Your task to perform on an android device: turn notification dots on Image 0: 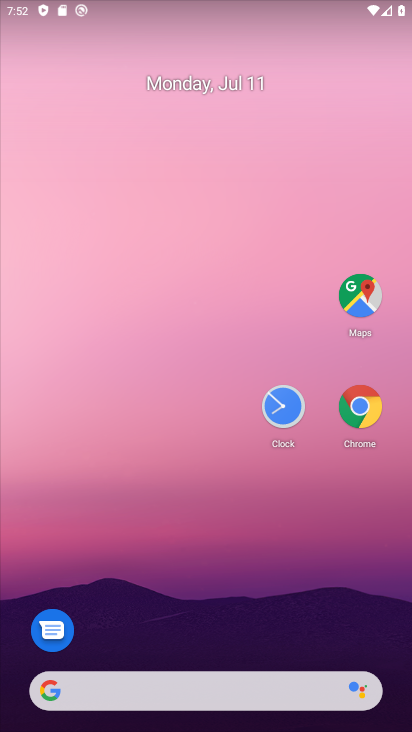
Step 0: drag from (233, 568) to (269, 219)
Your task to perform on an android device: turn notification dots on Image 1: 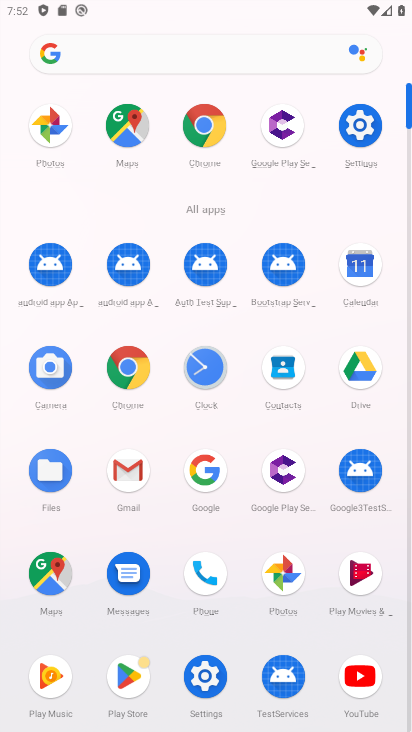
Step 1: drag from (368, 129) to (271, 312)
Your task to perform on an android device: turn notification dots on Image 2: 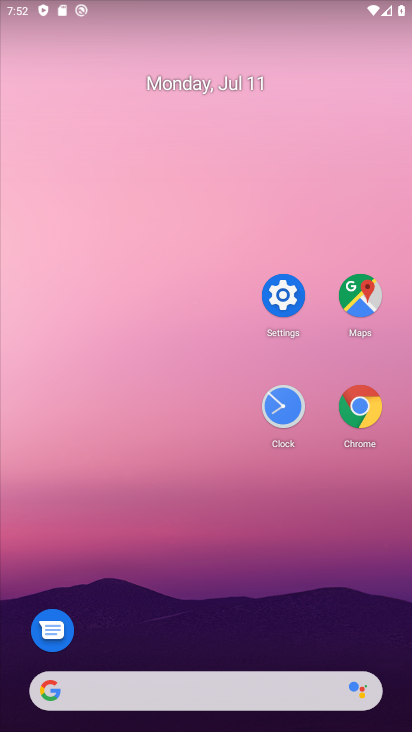
Step 2: click (293, 286)
Your task to perform on an android device: turn notification dots on Image 3: 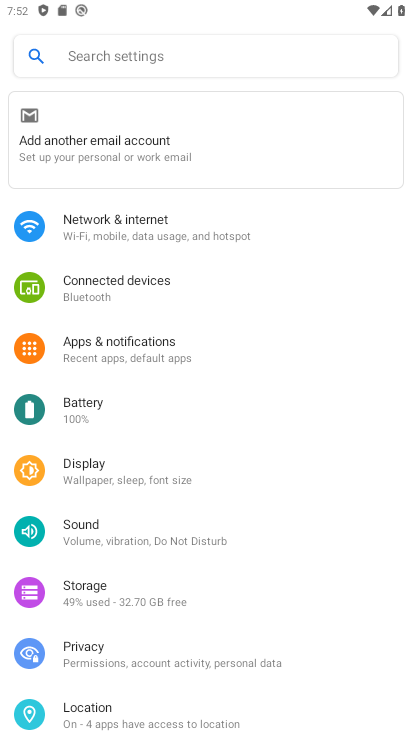
Step 3: click (220, 347)
Your task to perform on an android device: turn notification dots on Image 4: 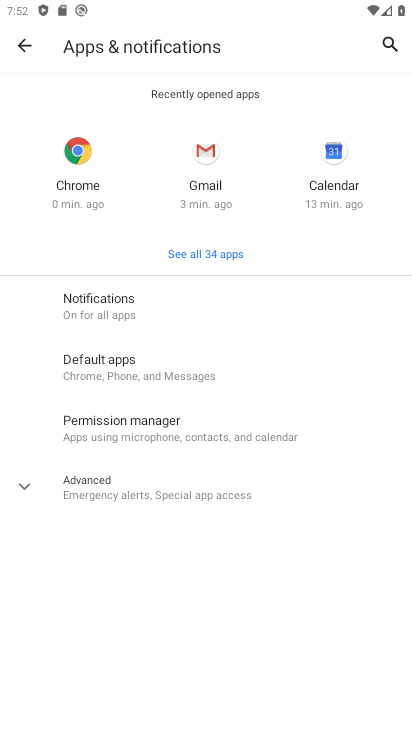
Step 4: click (121, 312)
Your task to perform on an android device: turn notification dots on Image 5: 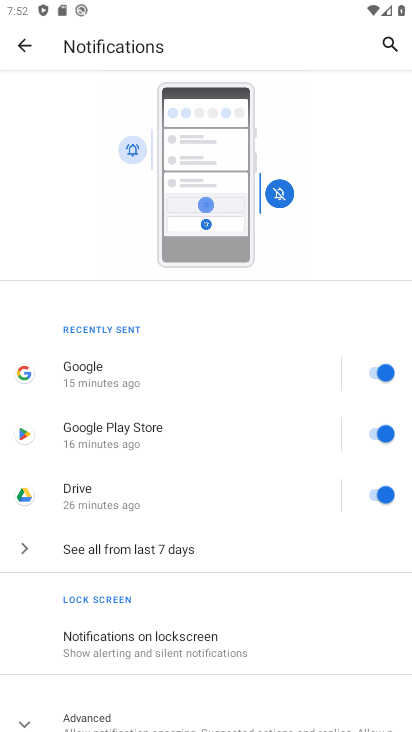
Step 5: drag from (248, 681) to (285, 319)
Your task to perform on an android device: turn notification dots on Image 6: 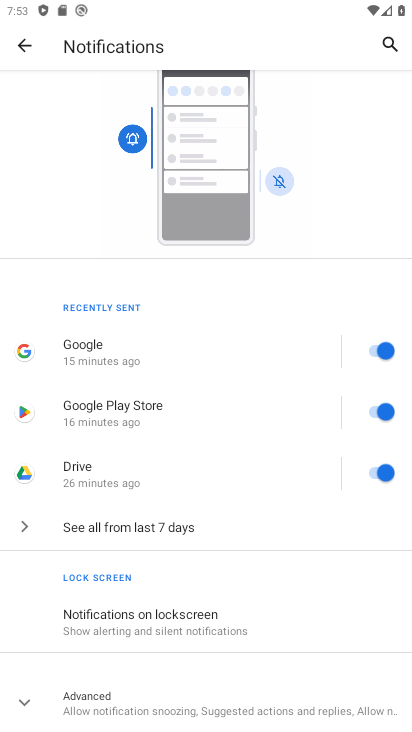
Step 6: click (112, 705)
Your task to perform on an android device: turn notification dots on Image 7: 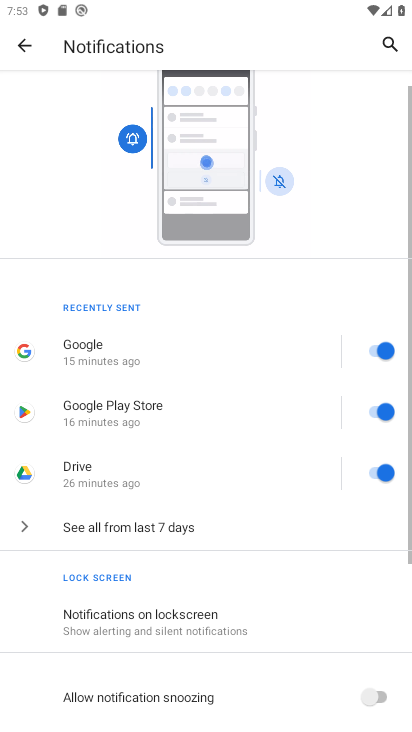
Step 7: task complete